Your task to perform on an android device: turn off improve location accuracy Image 0: 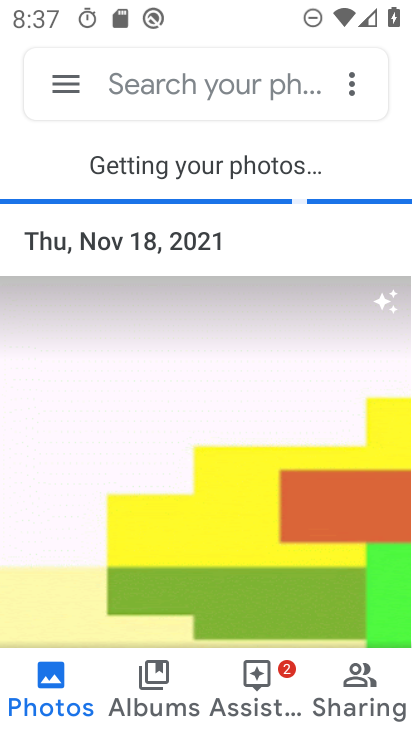
Step 0: press home button
Your task to perform on an android device: turn off improve location accuracy Image 1: 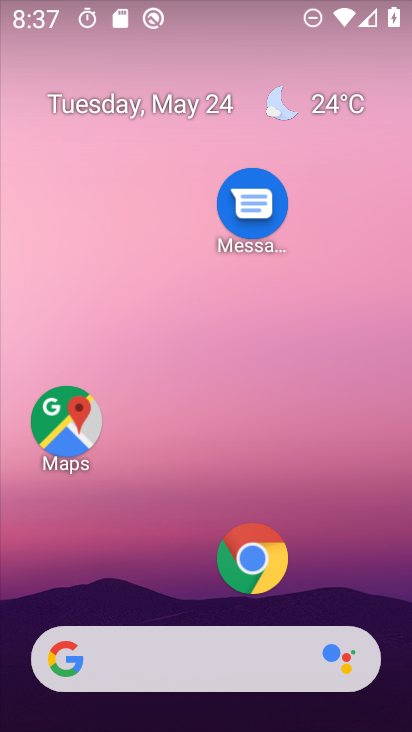
Step 1: drag from (180, 589) to (196, 207)
Your task to perform on an android device: turn off improve location accuracy Image 2: 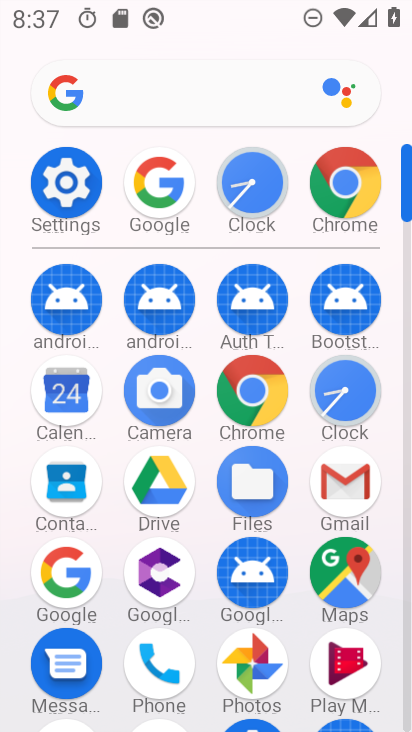
Step 2: click (71, 187)
Your task to perform on an android device: turn off improve location accuracy Image 3: 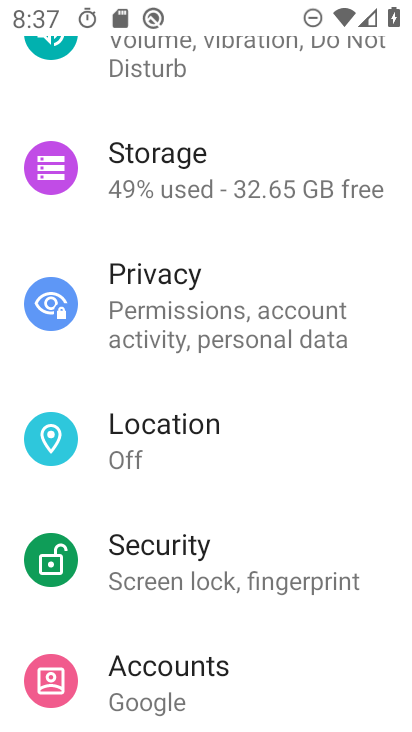
Step 3: click (203, 456)
Your task to perform on an android device: turn off improve location accuracy Image 4: 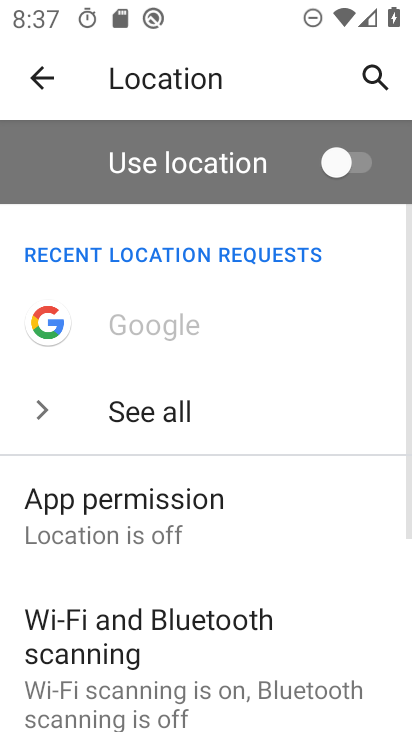
Step 4: drag from (250, 605) to (302, 246)
Your task to perform on an android device: turn off improve location accuracy Image 5: 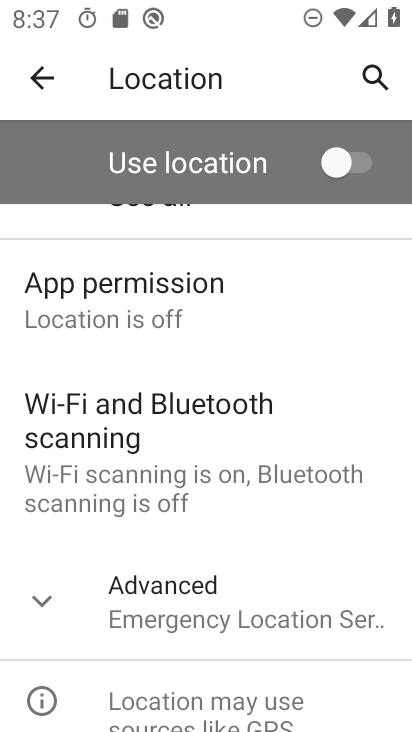
Step 5: click (238, 623)
Your task to perform on an android device: turn off improve location accuracy Image 6: 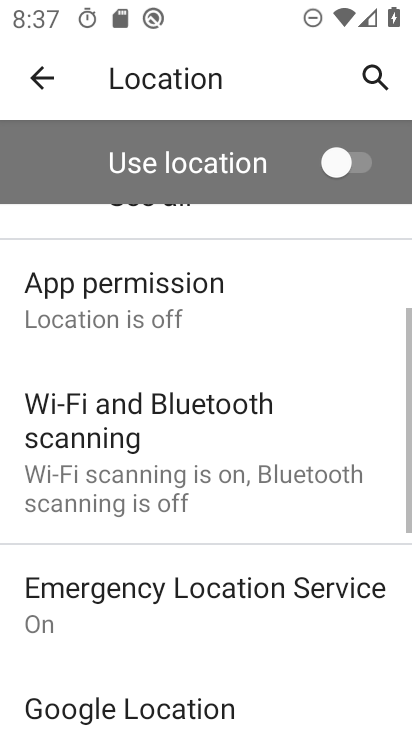
Step 6: drag from (222, 639) to (223, 352)
Your task to perform on an android device: turn off improve location accuracy Image 7: 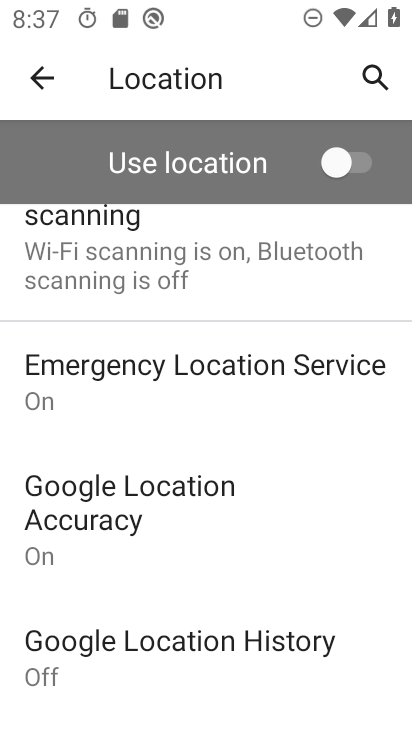
Step 7: click (158, 510)
Your task to perform on an android device: turn off improve location accuracy Image 8: 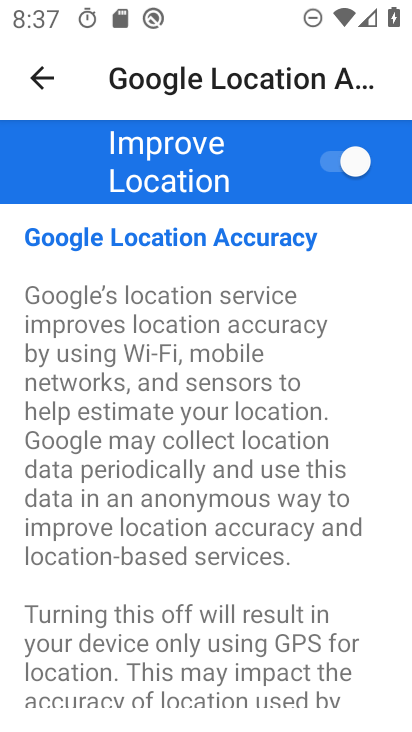
Step 8: click (328, 152)
Your task to perform on an android device: turn off improve location accuracy Image 9: 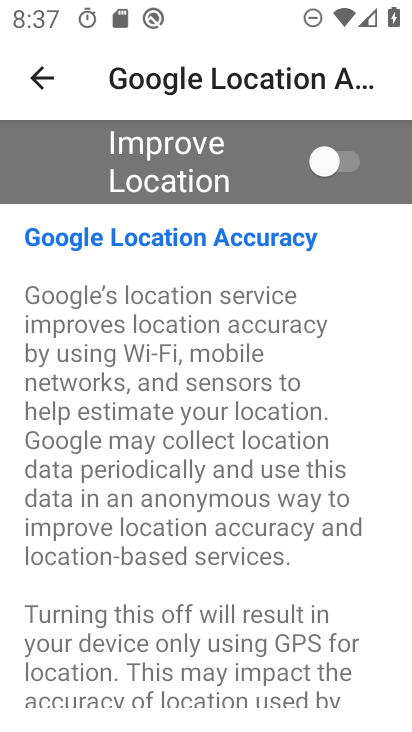
Step 9: task complete